Your task to perform on an android device: turn off notifications settings in the gmail app Image 0: 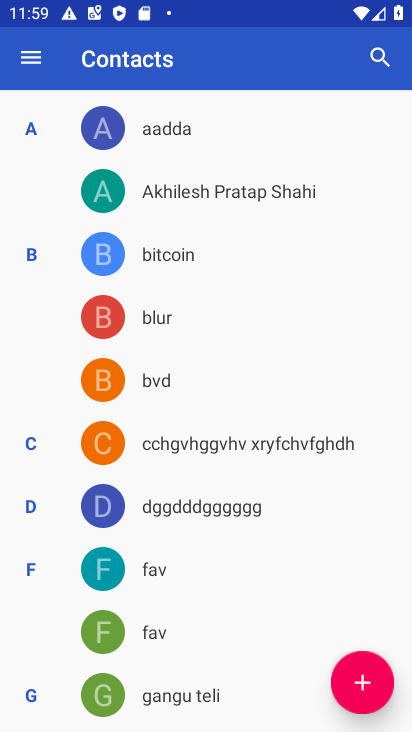
Step 0: press home button
Your task to perform on an android device: turn off notifications settings in the gmail app Image 1: 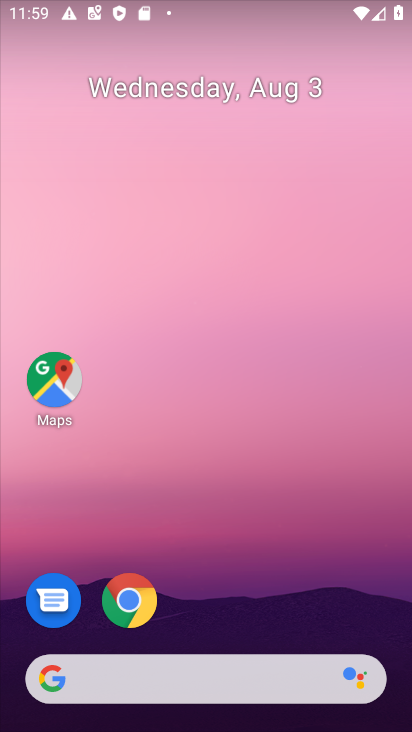
Step 1: drag from (149, 674) to (191, 80)
Your task to perform on an android device: turn off notifications settings in the gmail app Image 2: 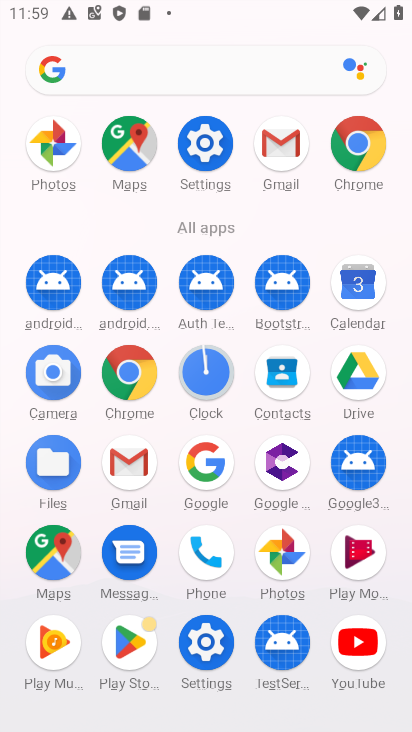
Step 2: click (289, 148)
Your task to perform on an android device: turn off notifications settings in the gmail app Image 3: 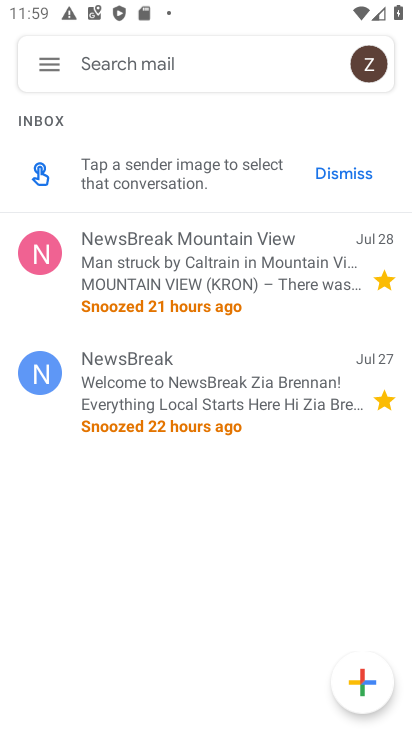
Step 3: click (53, 59)
Your task to perform on an android device: turn off notifications settings in the gmail app Image 4: 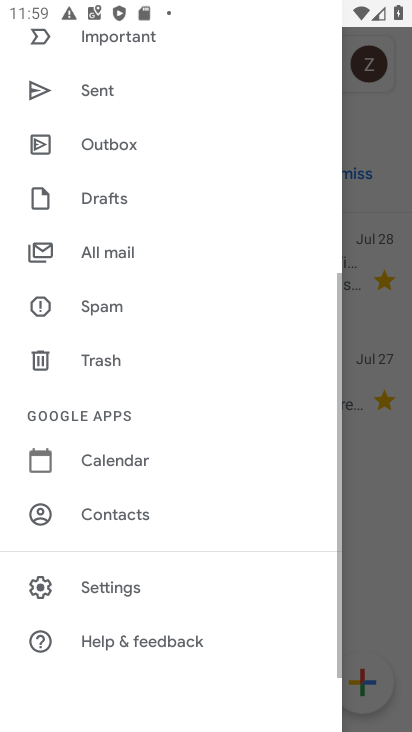
Step 4: click (116, 586)
Your task to perform on an android device: turn off notifications settings in the gmail app Image 5: 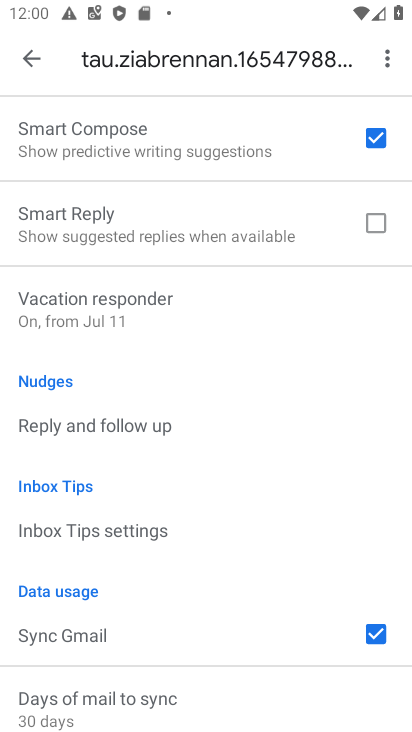
Step 5: drag from (229, 227) to (272, 646)
Your task to perform on an android device: turn off notifications settings in the gmail app Image 6: 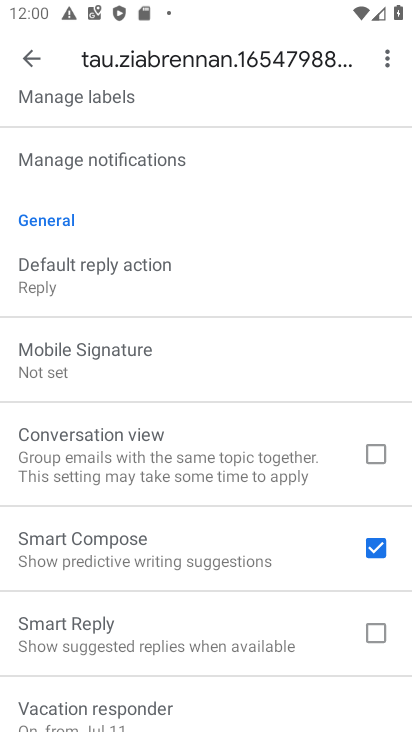
Step 6: drag from (222, 245) to (211, 624)
Your task to perform on an android device: turn off notifications settings in the gmail app Image 7: 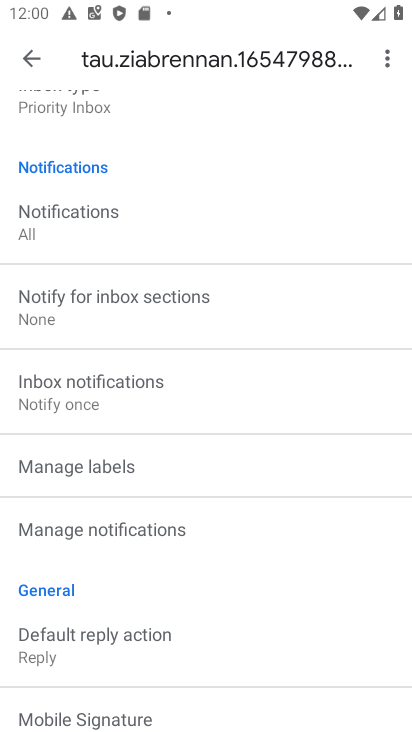
Step 7: click (69, 227)
Your task to perform on an android device: turn off notifications settings in the gmail app Image 8: 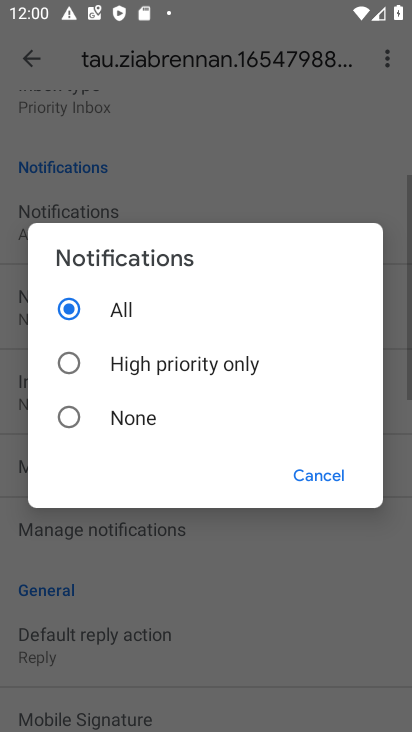
Step 8: click (67, 416)
Your task to perform on an android device: turn off notifications settings in the gmail app Image 9: 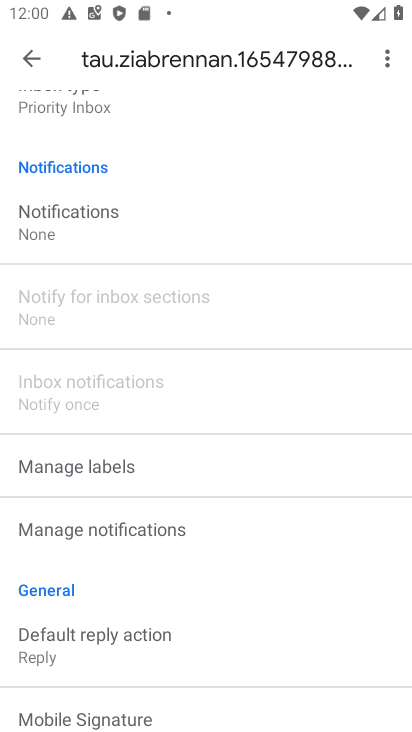
Step 9: task complete